Your task to perform on an android device: Show me popular games on the Play Store Image 0: 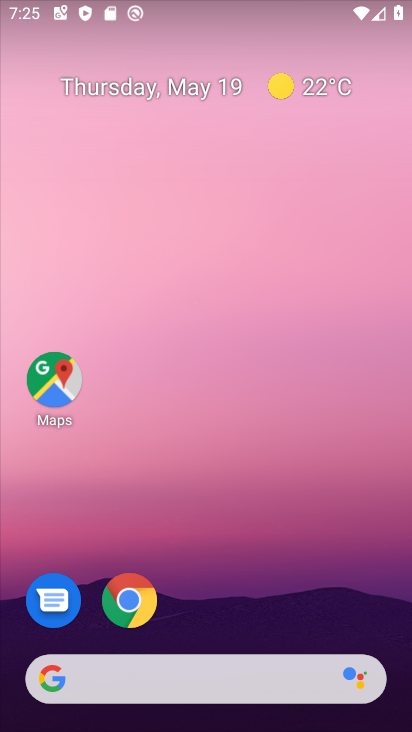
Step 0: drag from (297, 547) to (290, 168)
Your task to perform on an android device: Show me popular games on the Play Store Image 1: 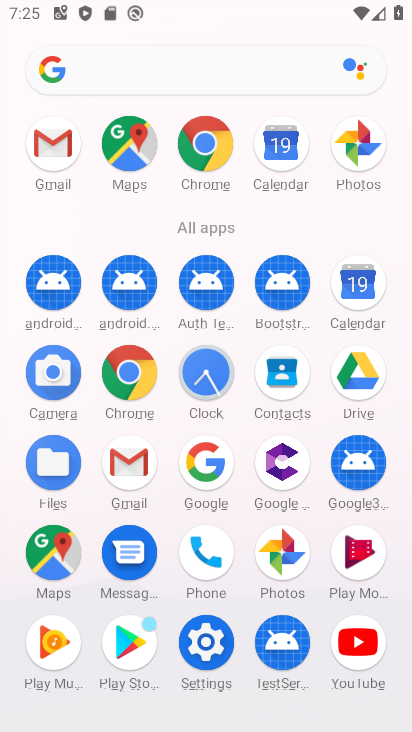
Step 1: click (121, 650)
Your task to perform on an android device: Show me popular games on the Play Store Image 2: 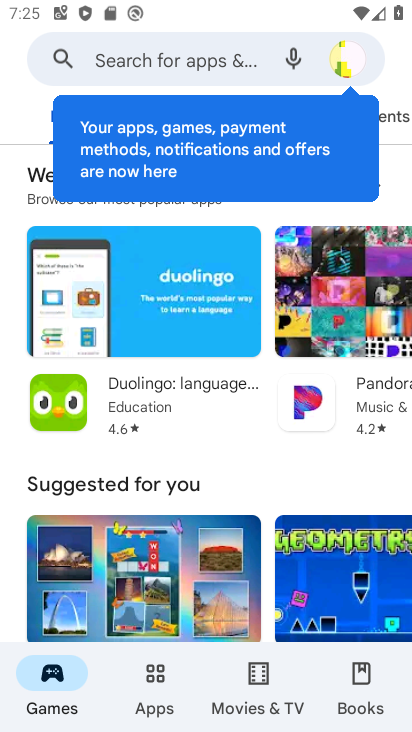
Step 2: click (149, 669)
Your task to perform on an android device: Show me popular games on the Play Store Image 3: 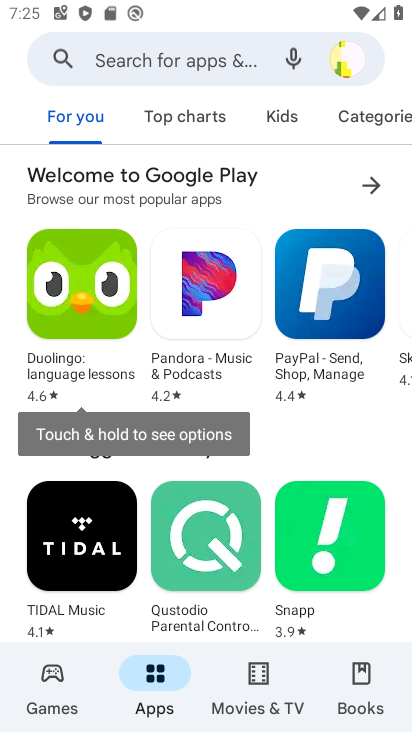
Step 3: click (34, 692)
Your task to perform on an android device: Show me popular games on the Play Store Image 4: 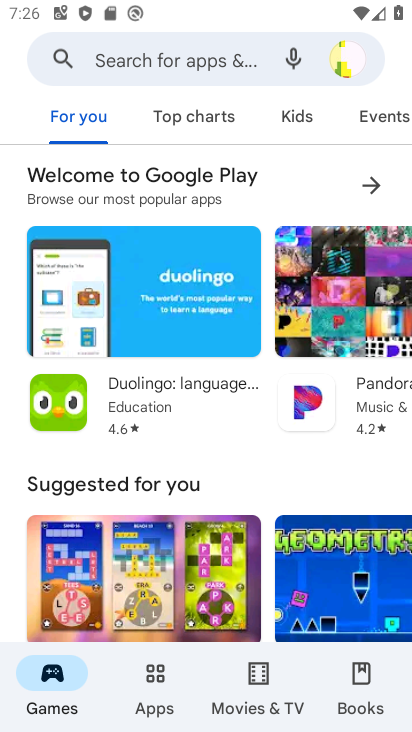
Step 4: click (196, 121)
Your task to perform on an android device: Show me popular games on the Play Store Image 5: 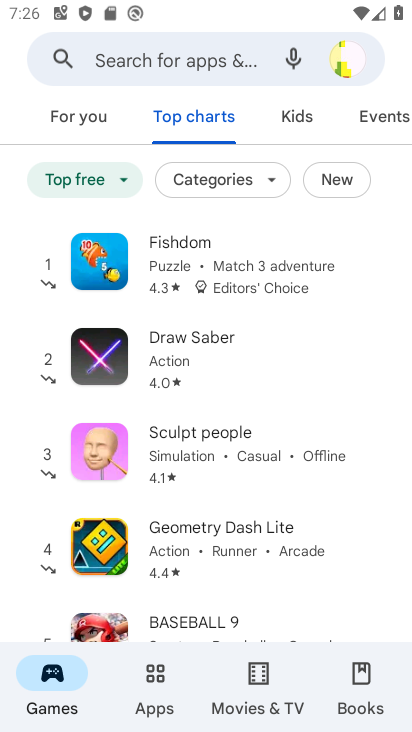
Step 5: task complete